Your task to perform on an android device: turn smart compose on in the gmail app Image 0: 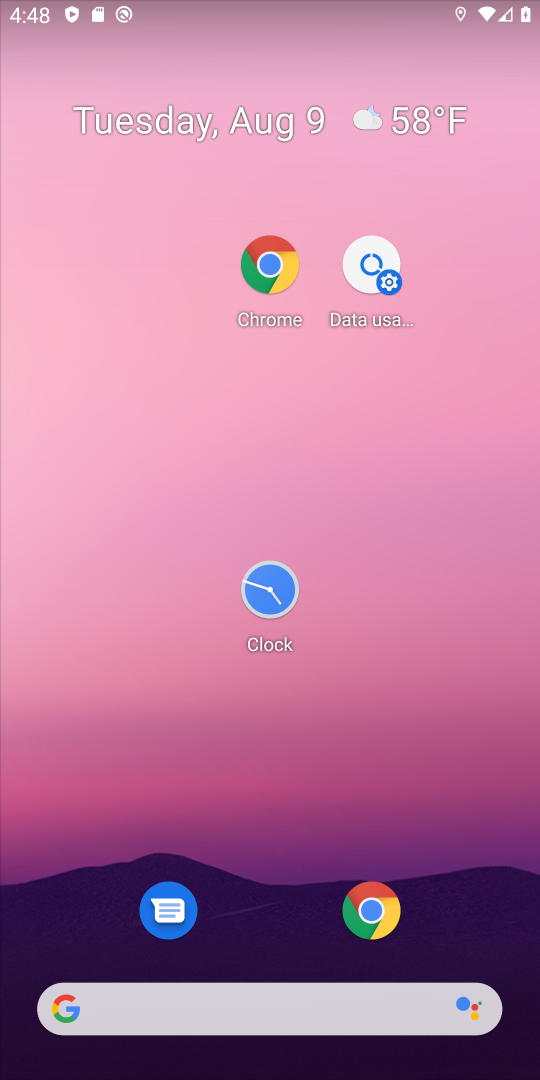
Step 0: drag from (288, 284) to (258, 443)
Your task to perform on an android device: turn smart compose on in the gmail app Image 1: 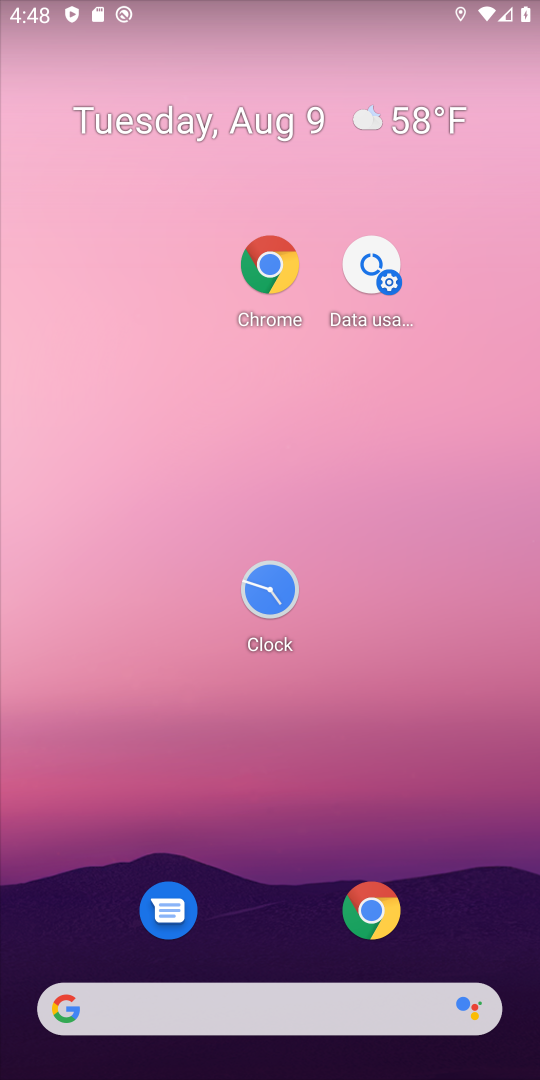
Step 1: click (251, 244)
Your task to perform on an android device: turn smart compose on in the gmail app Image 2: 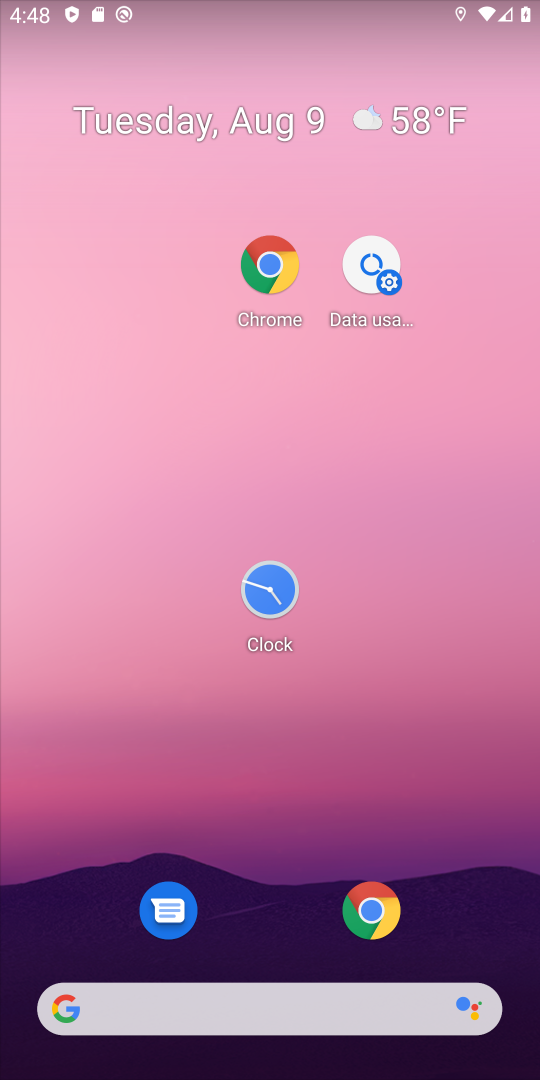
Step 2: drag from (382, 618) to (211, 218)
Your task to perform on an android device: turn smart compose on in the gmail app Image 3: 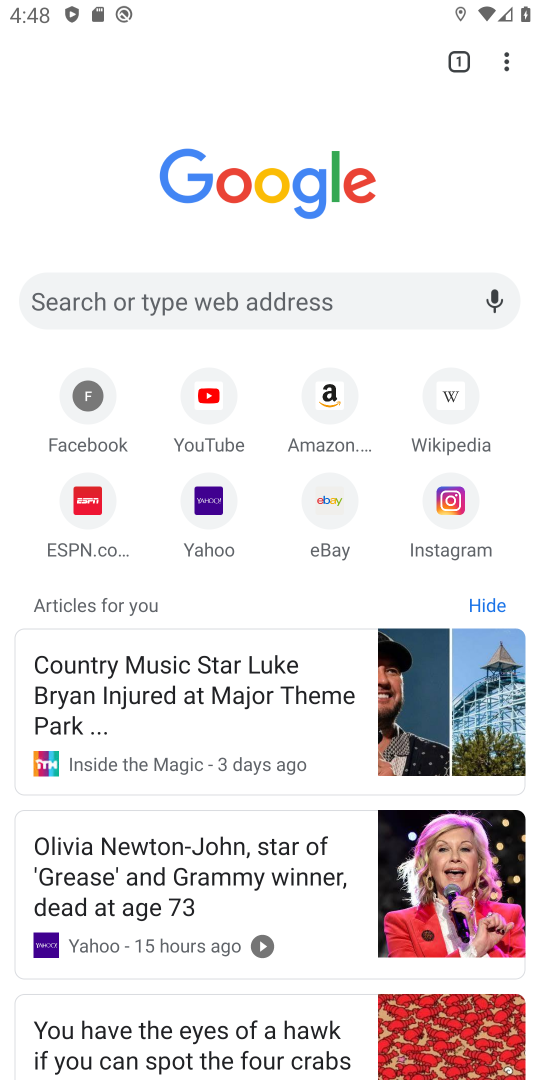
Step 3: press back button
Your task to perform on an android device: turn smart compose on in the gmail app Image 4: 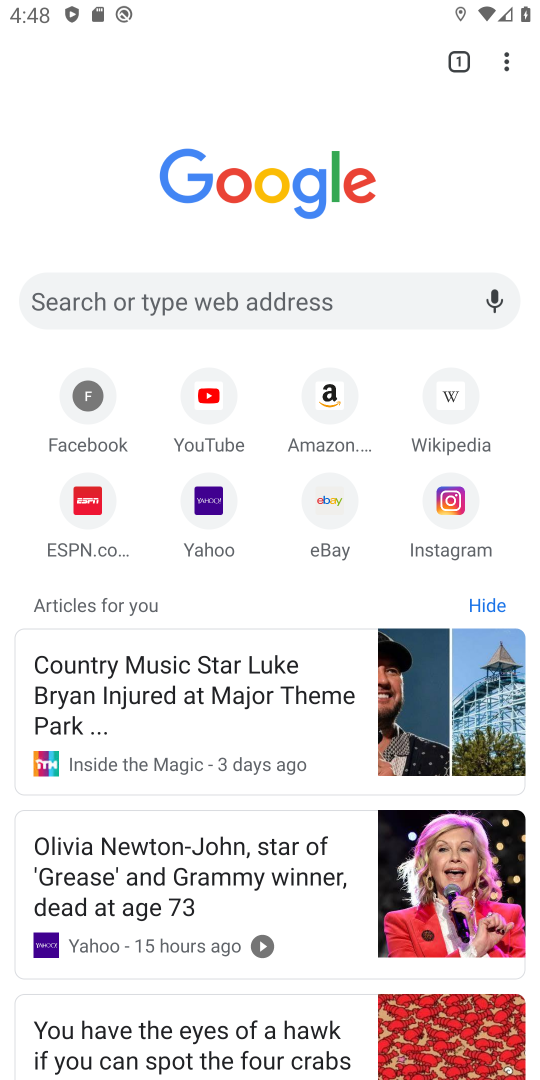
Step 4: press back button
Your task to perform on an android device: turn smart compose on in the gmail app Image 5: 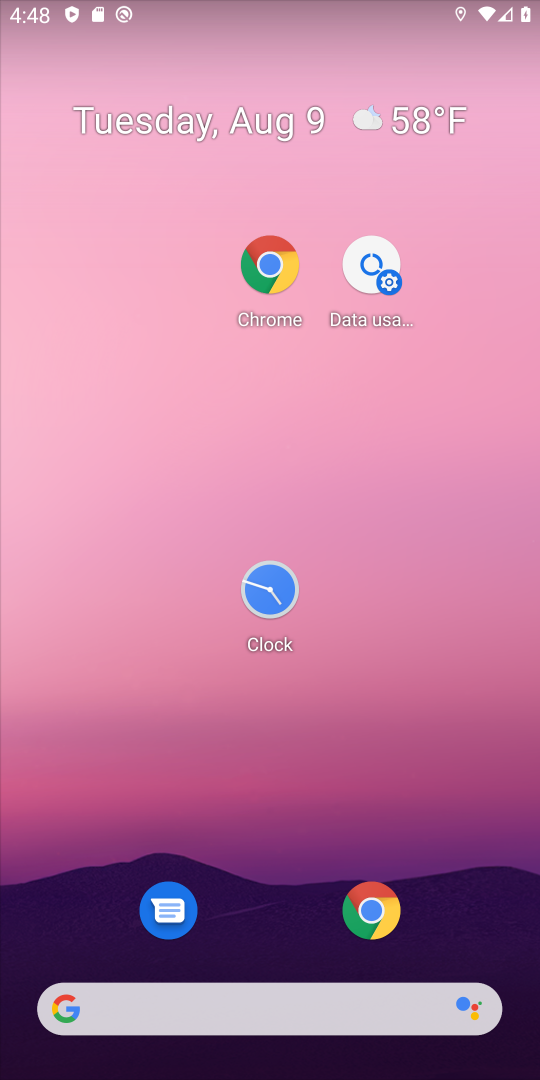
Step 5: press home button
Your task to perform on an android device: turn smart compose on in the gmail app Image 6: 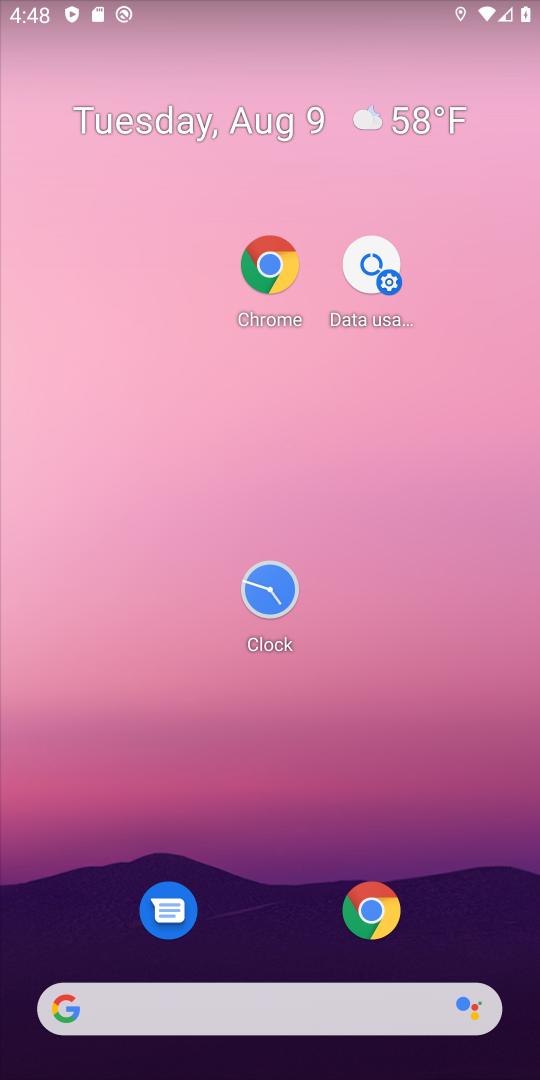
Step 6: press back button
Your task to perform on an android device: turn smart compose on in the gmail app Image 7: 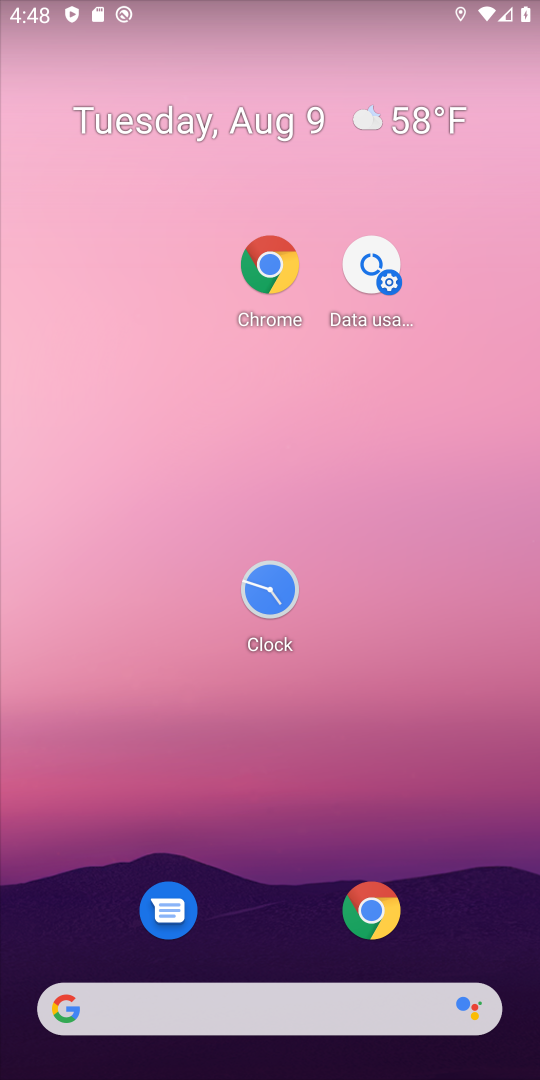
Step 7: drag from (211, 296) to (302, 303)
Your task to perform on an android device: turn smart compose on in the gmail app Image 8: 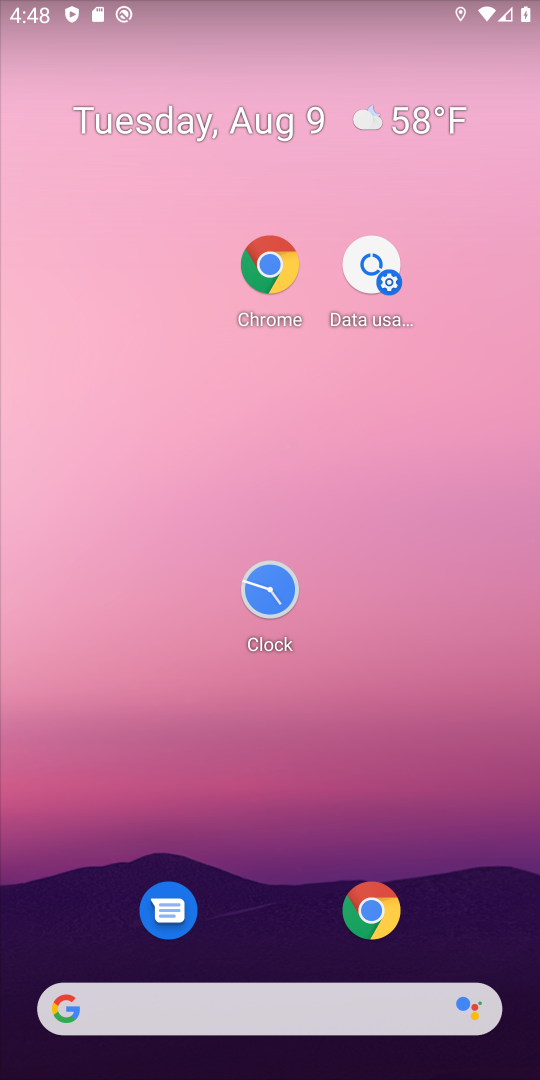
Step 8: drag from (357, 926) to (235, 179)
Your task to perform on an android device: turn smart compose on in the gmail app Image 9: 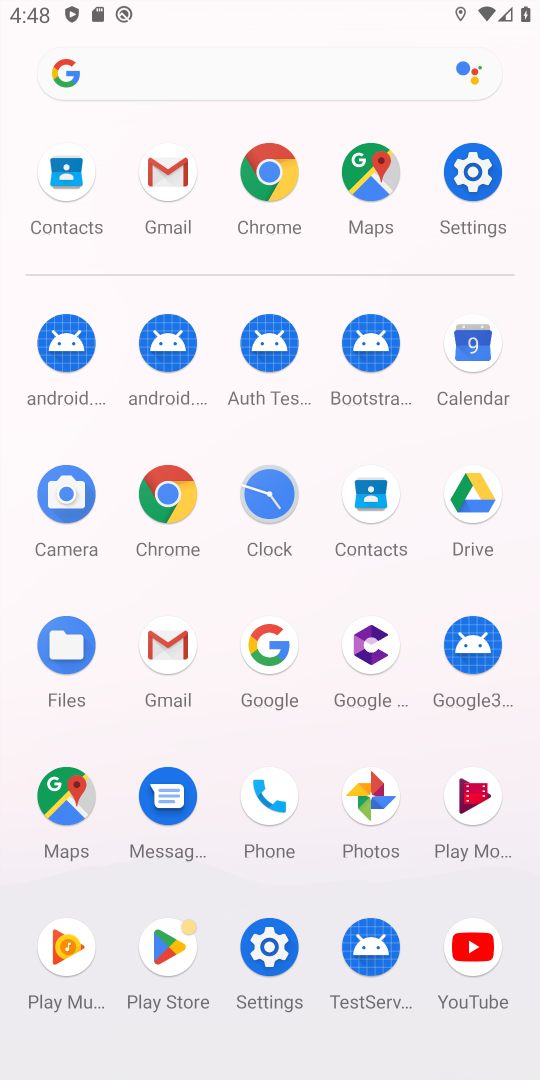
Step 9: click (159, 664)
Your task to perform on an android device: turn smart compose on in the gmail app Image 10: 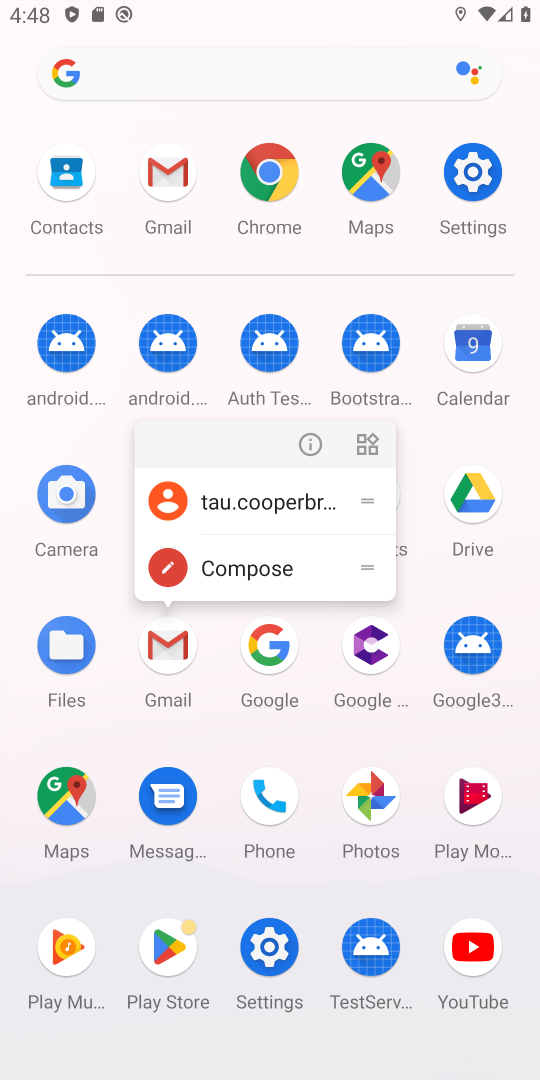
Step 10: click (157, 662)
Your task to perform on an android device: turn smart compose on in the gmail app Image 11: 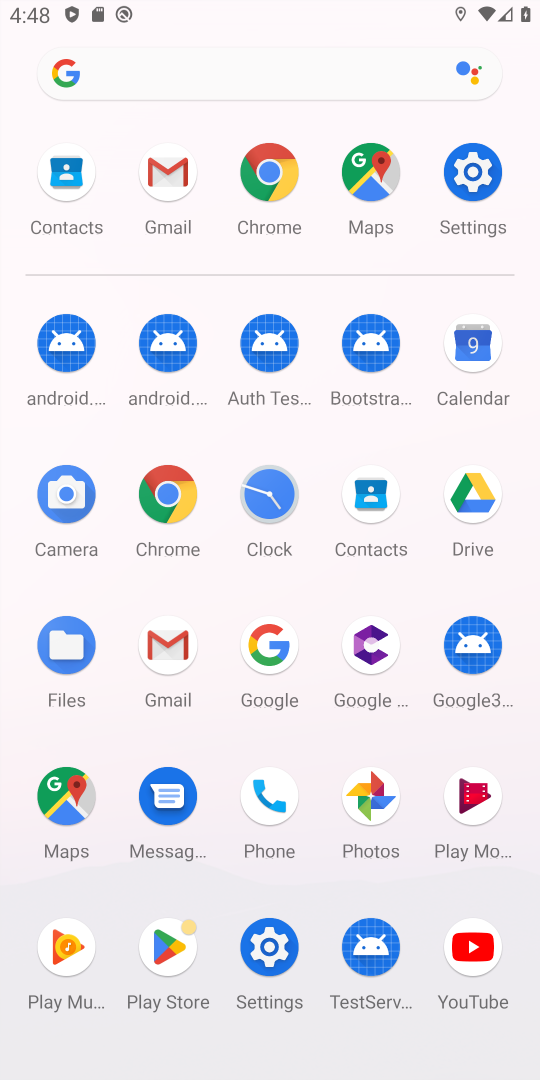
Step 11: click (158, 664)
Your task to perform on an android device: turn smart compose on in the gmail app Image 12: 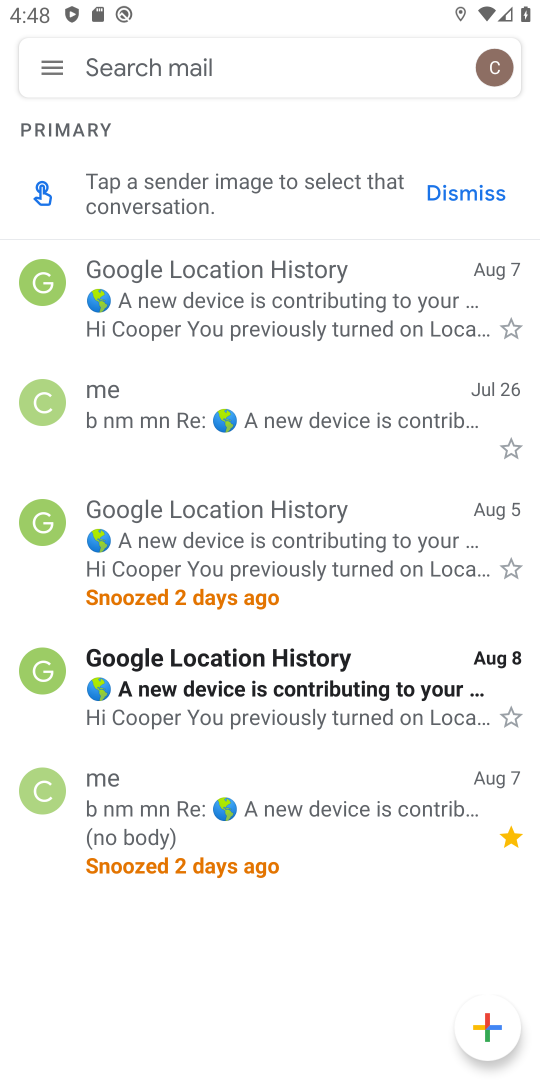
Step 12: click (157, 644)
Your task to perform on an android device: turn smart compose on in the gmail app Image 13: 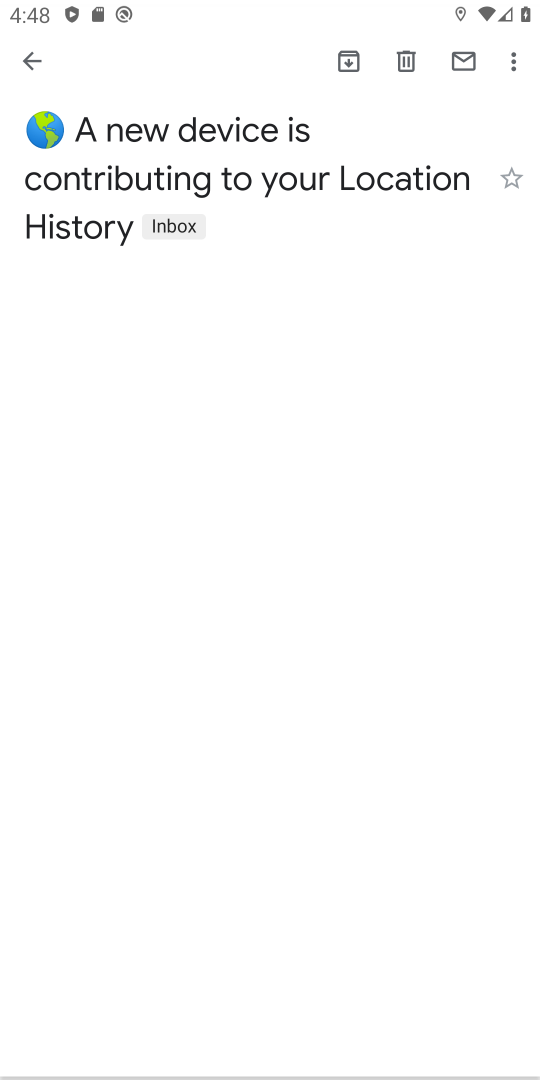
Step 13: click (55, 71)
Your task to perform on an android device: turn smart compose on in the gmail app Image 14: 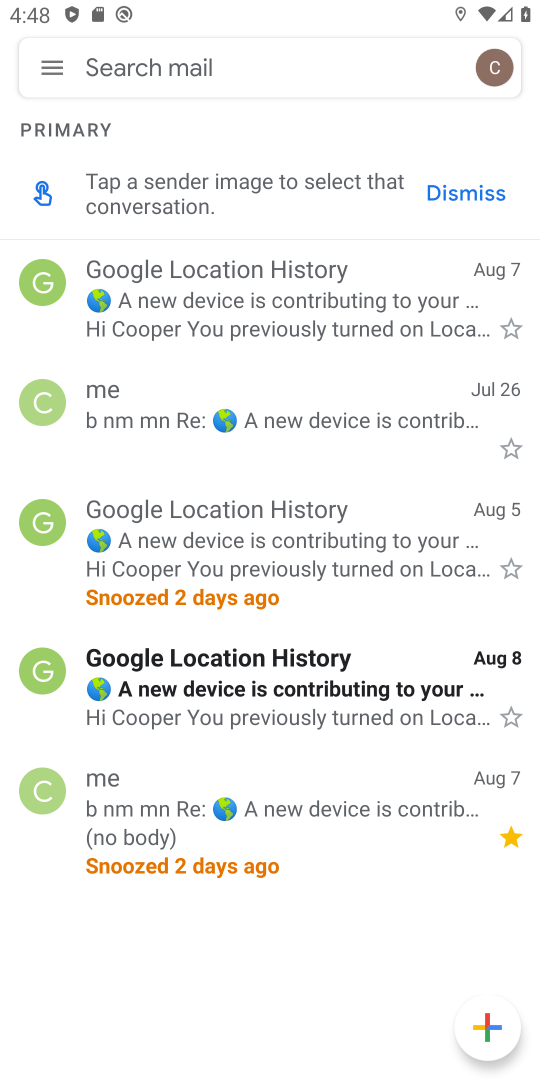
Step 14: click (47, 83)
Your task to perform on an android device: turn smart compose on in the gmail app Image 15: 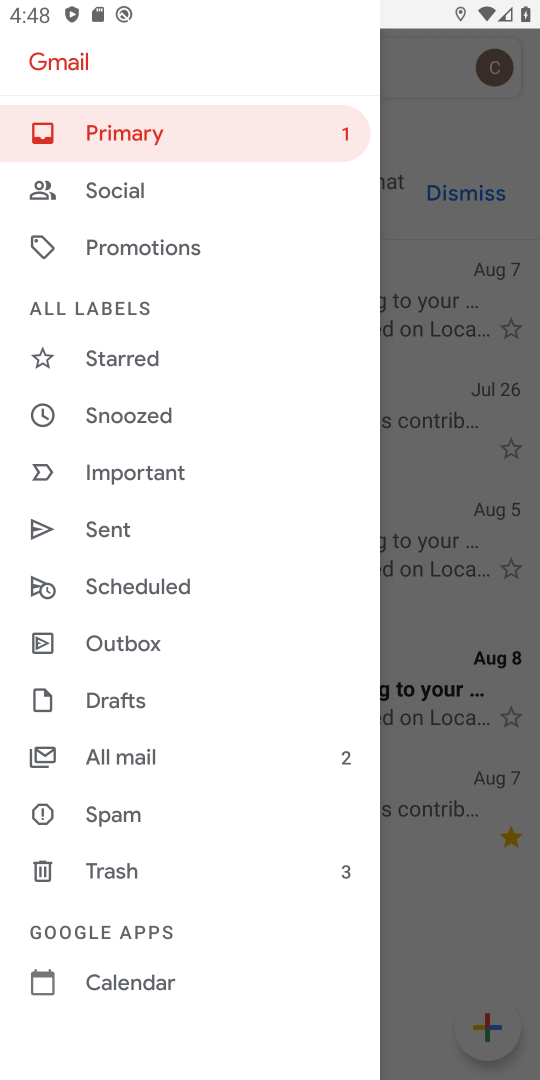
Step 15: drag from (188, 607) to (188, 326)
Your task to perform on an android device: turn smart compose on in the gmail app Image 16: 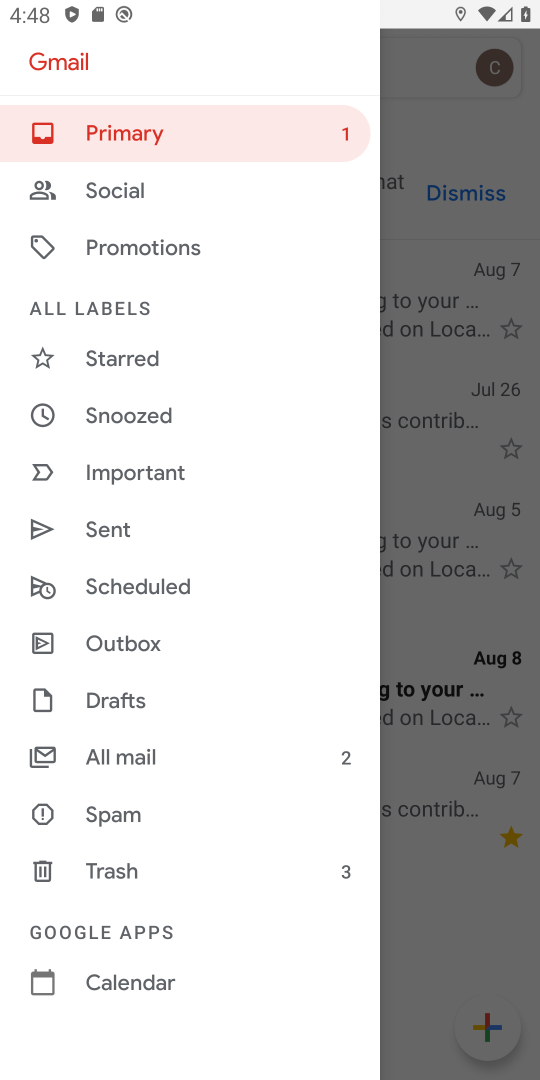
Step 16: drag from (263, 707) to (195, 166)
Your task to perform on an android device: turn smart compose on in the gmail app Image 17: 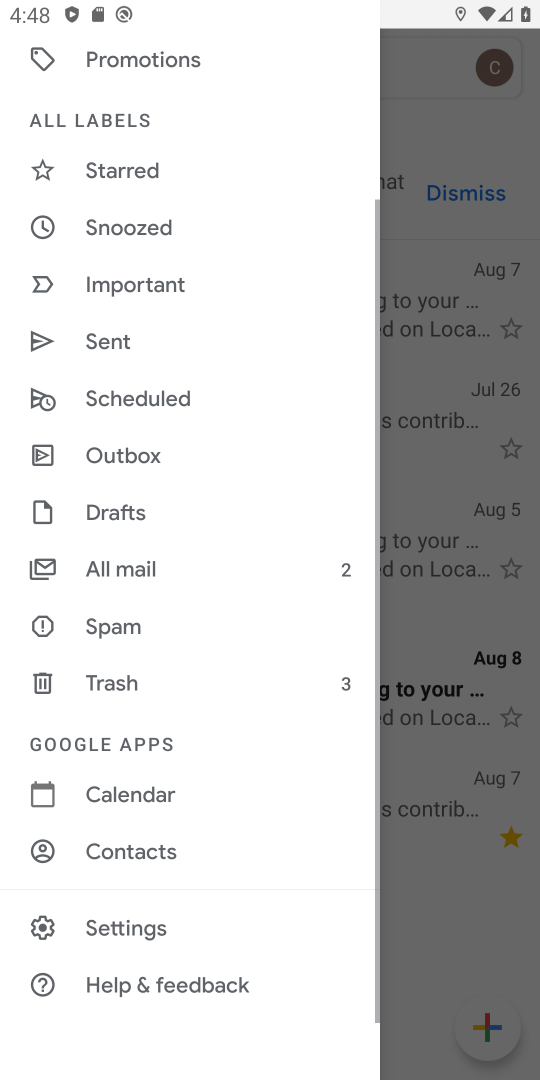
Step 17: click (125, 914)
Your task to perform on an android device: turn smart compose on in the gmail app Image 18: 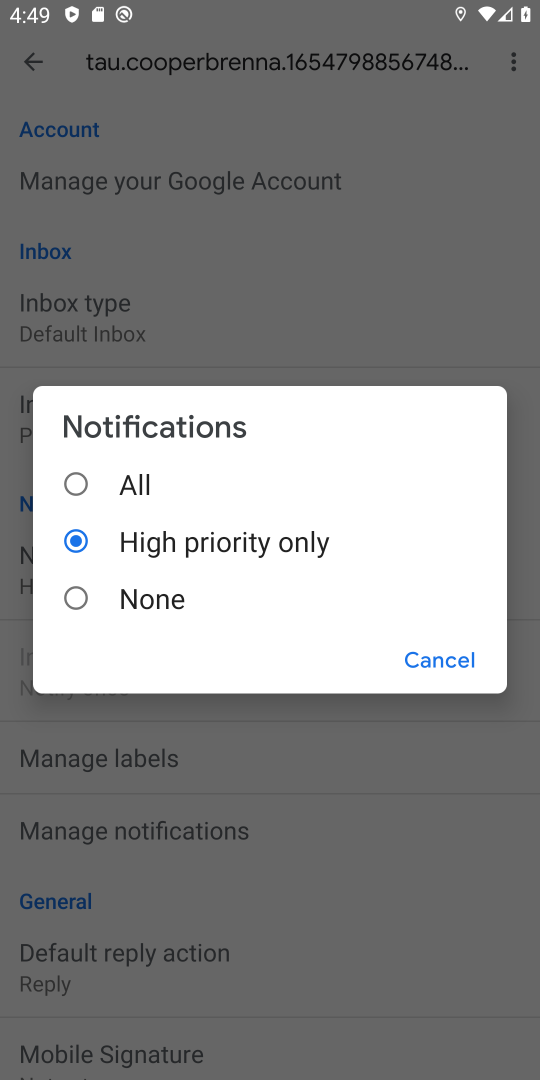
Step 18: click (424, 655)
Your task to perform on an android device: turn smart compose on in the gmail app Image 19: 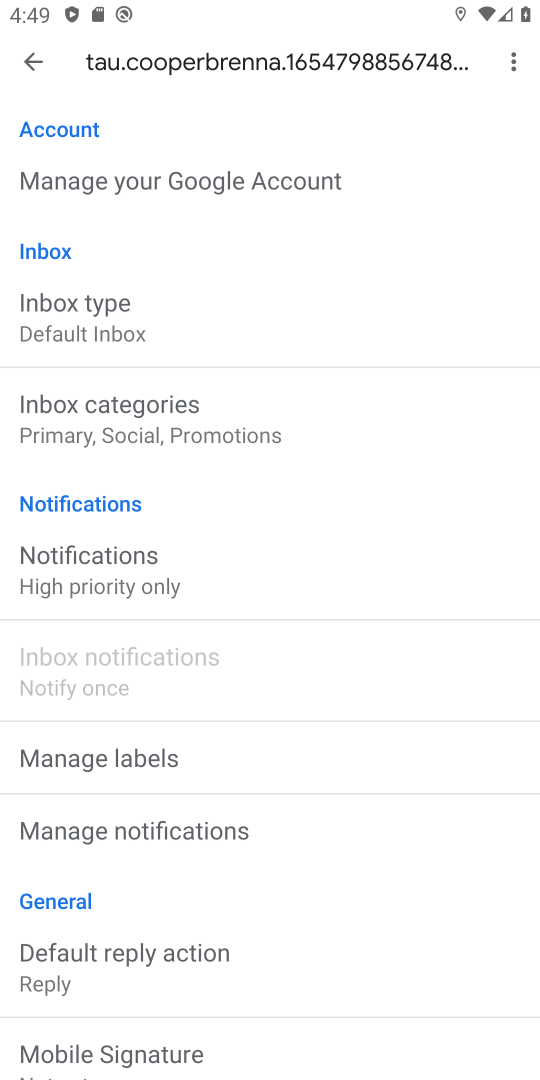
Step 19: drag from (141, 870) to (43, 92)
Your task to perform on an android device: turn smart compose on in the gmail app Image 20: 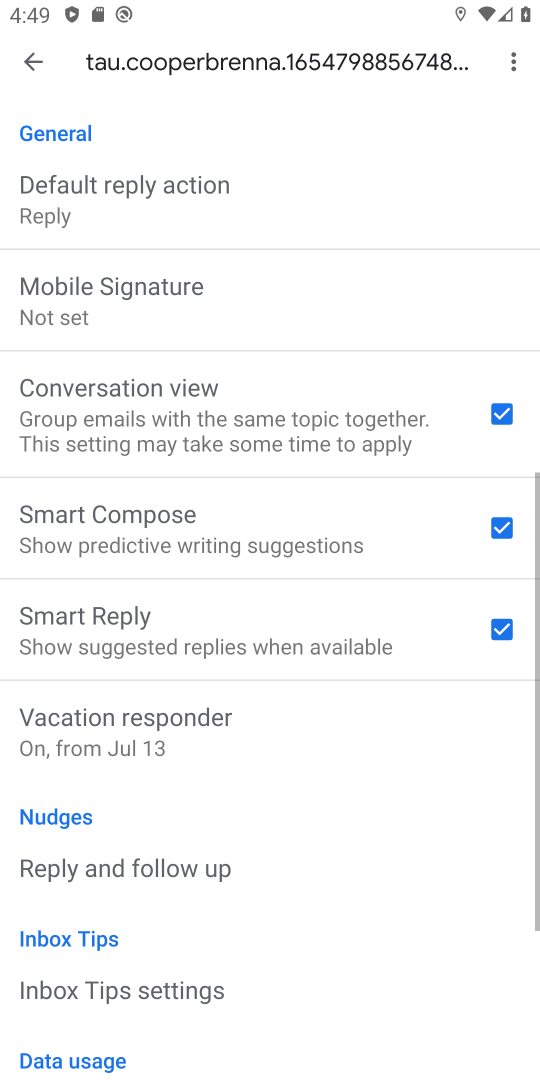
Step 20: drag from (87, 643) to (206, 89)
Your task to perform on an android device: turn smart compose on in the gmail app Image 21: 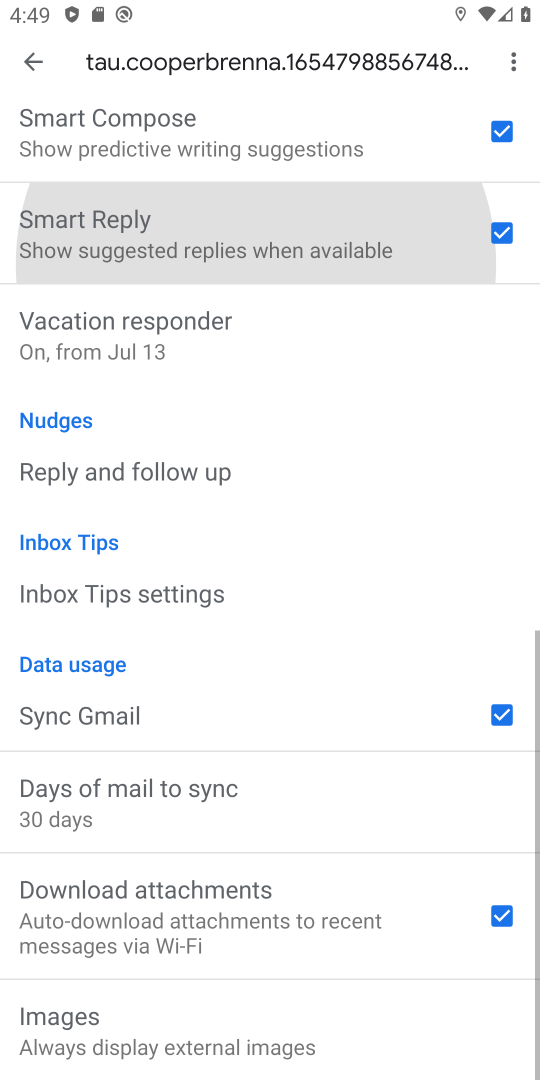
Step 21: drag from (180, 594) to (195, 123)
Your task to perform on an android device: turn smart compose on in the gmail app Image 22: 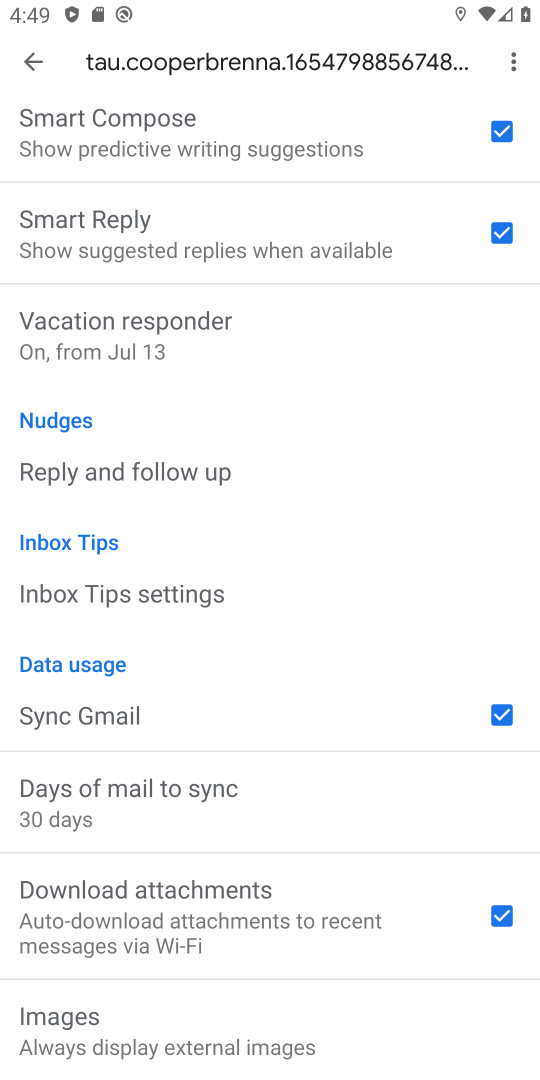
Step 22: click (509, 131)
Your task to perform on an android device: turn smart compose on in the gmail app Image 23: 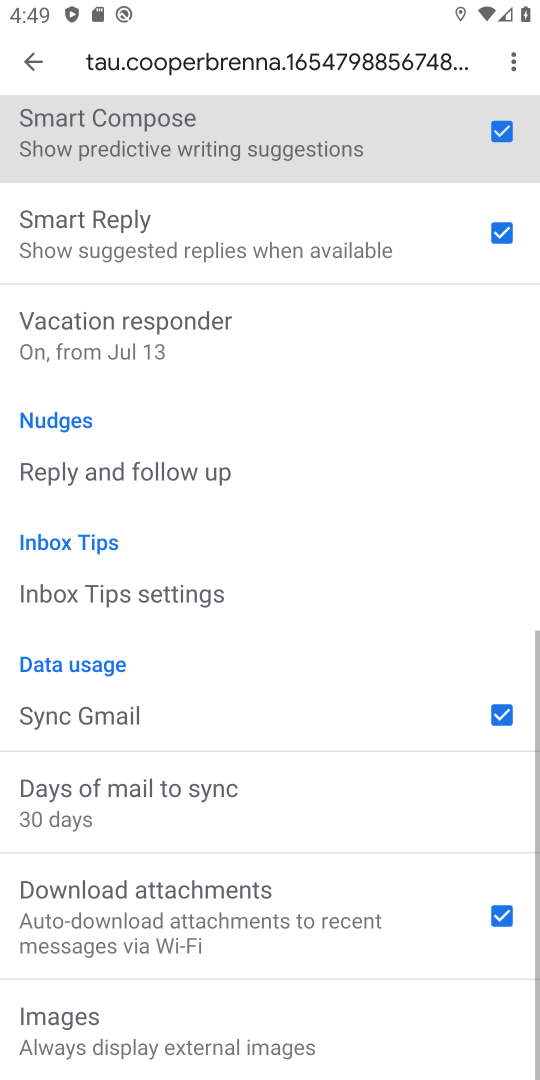
Step 23: click (508, 128)
Your task to perform on an android device: turn smart compose on in the gmail app Image 24: 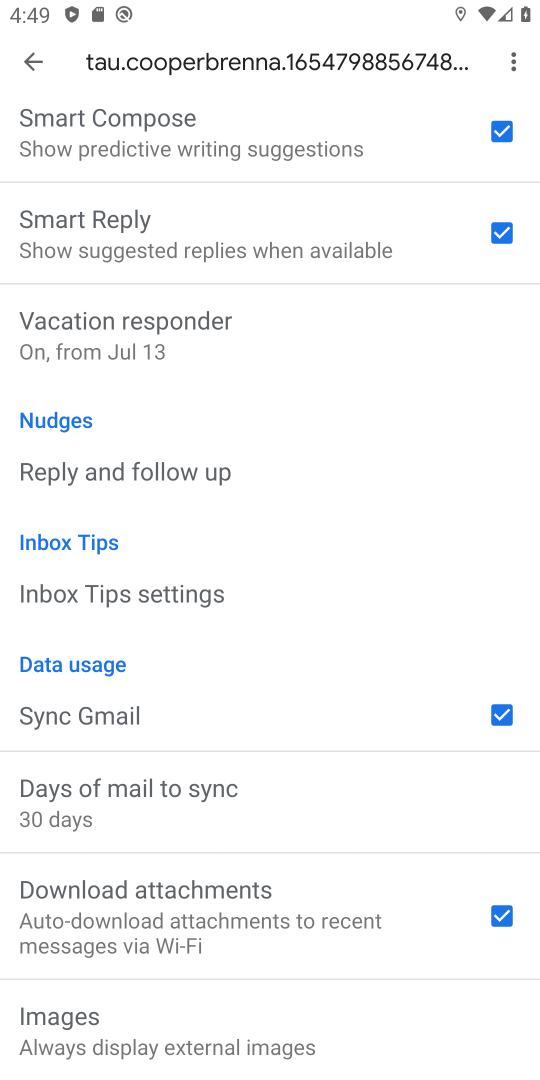
Step 24: task complete